Your task to perform on an android device: add a contact Image 0: 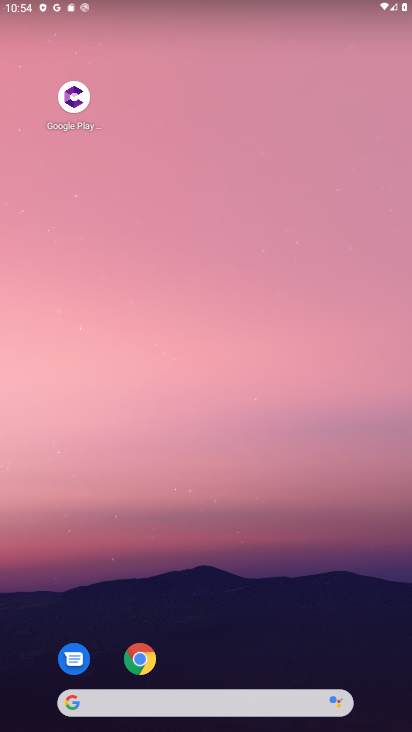
Step 0: drag from (253, 667) to (234, 119)
Your task to perform on an android device: add a contact Image 1: 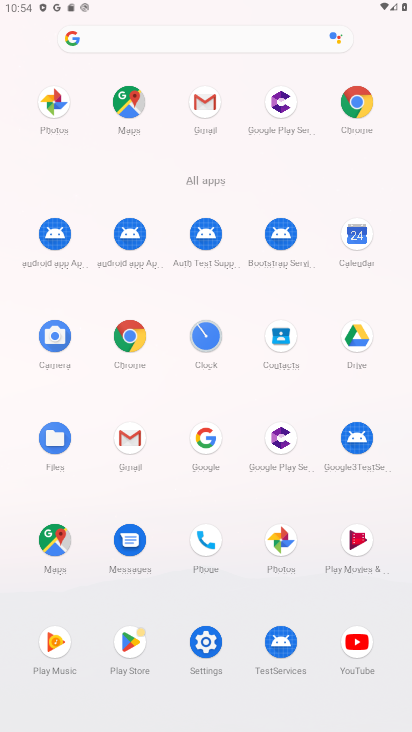
Step 1: click (283, 341)
Your task to perform on an android device: add a contact Image 2: 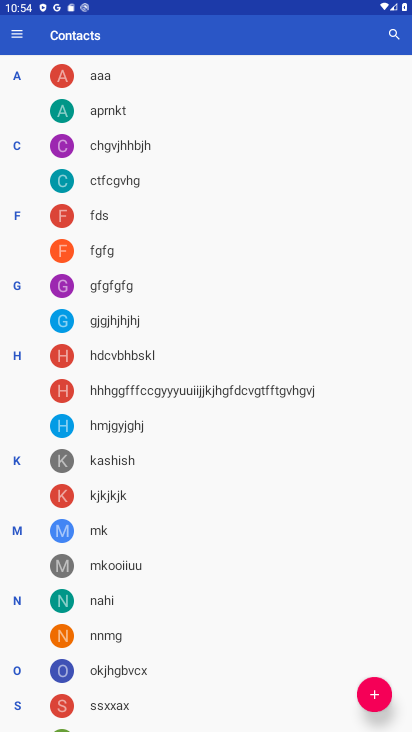
Step 2: click (372, 693)
Your task to perform on an android device: add a contact Image 3: 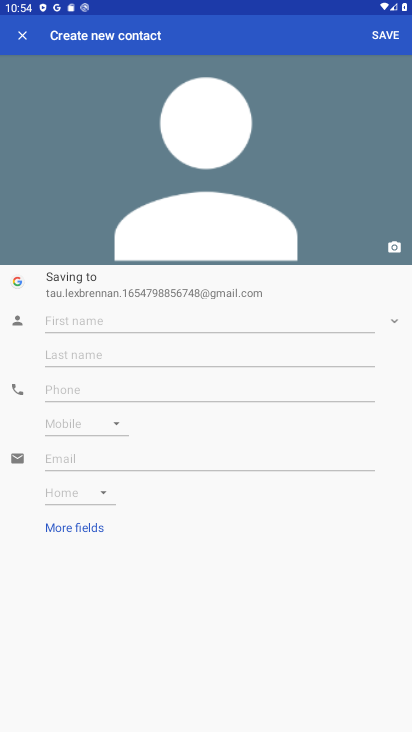
Step 3: click (143, 314)
Your task to perform on an android device: add a contact Image 4: 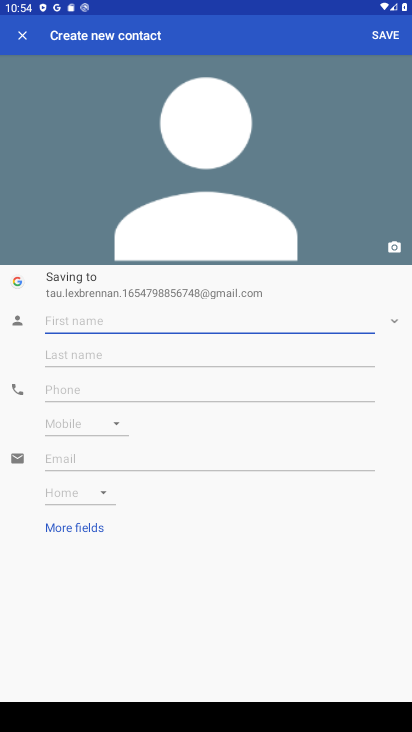
Step 4: type "cjgcvjgvj"
Your task to perform on an android device: add a contact Image 5: 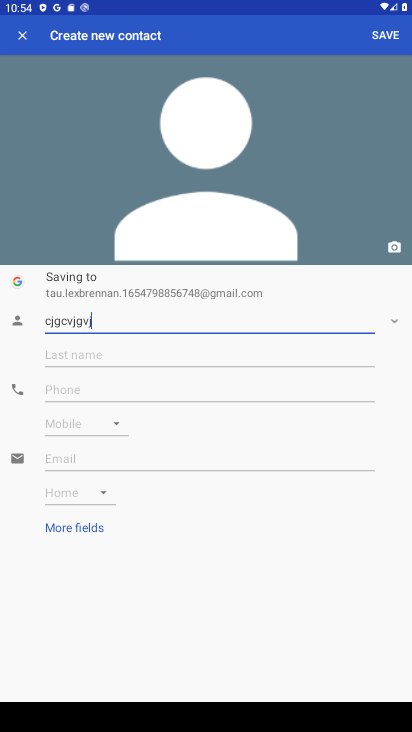
Step 5: click (277, 391)
Your task to perform on an android device: add a contact Image 6: 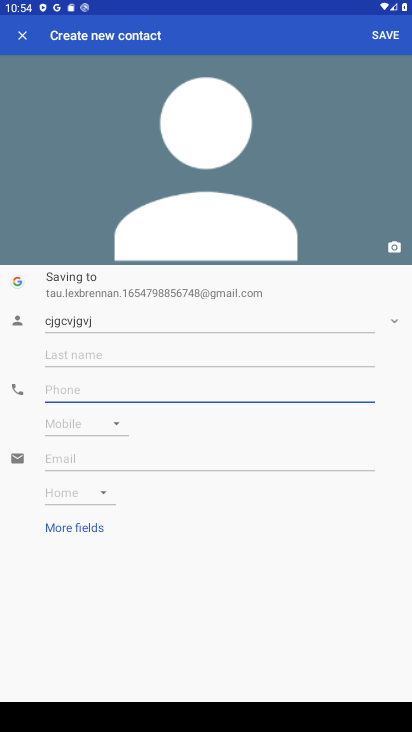
Step 6: type "46757655"
Your task to perform on an android device: add a contact Image 7: 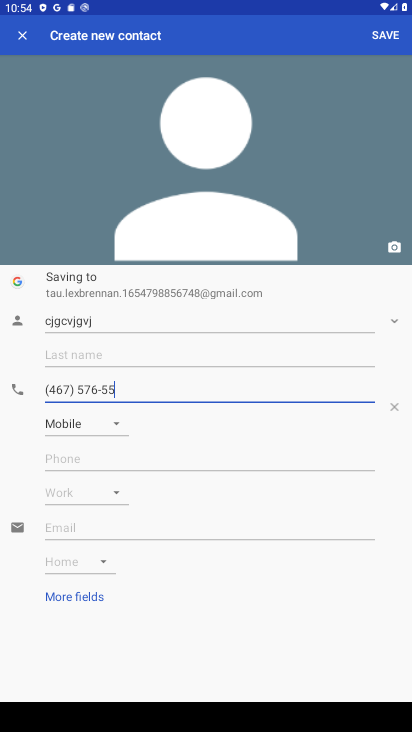
Step 7: click (378, 31)
Your task to perform on an android device: add a contact Image 8: 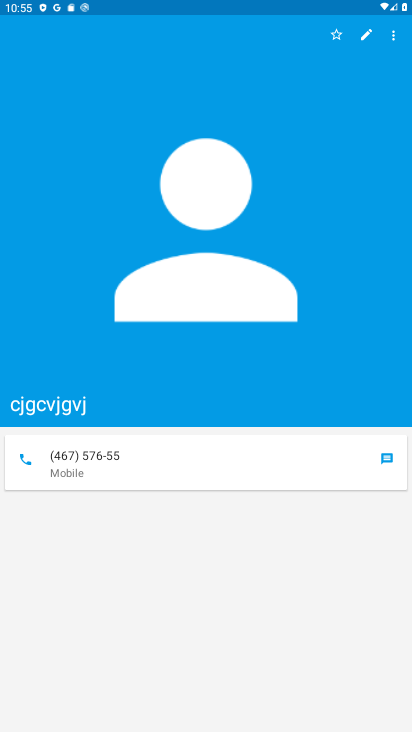
Step 8: task complete